Your task to perform on an android device: Search for pizza restaurants on Maps Image 0: 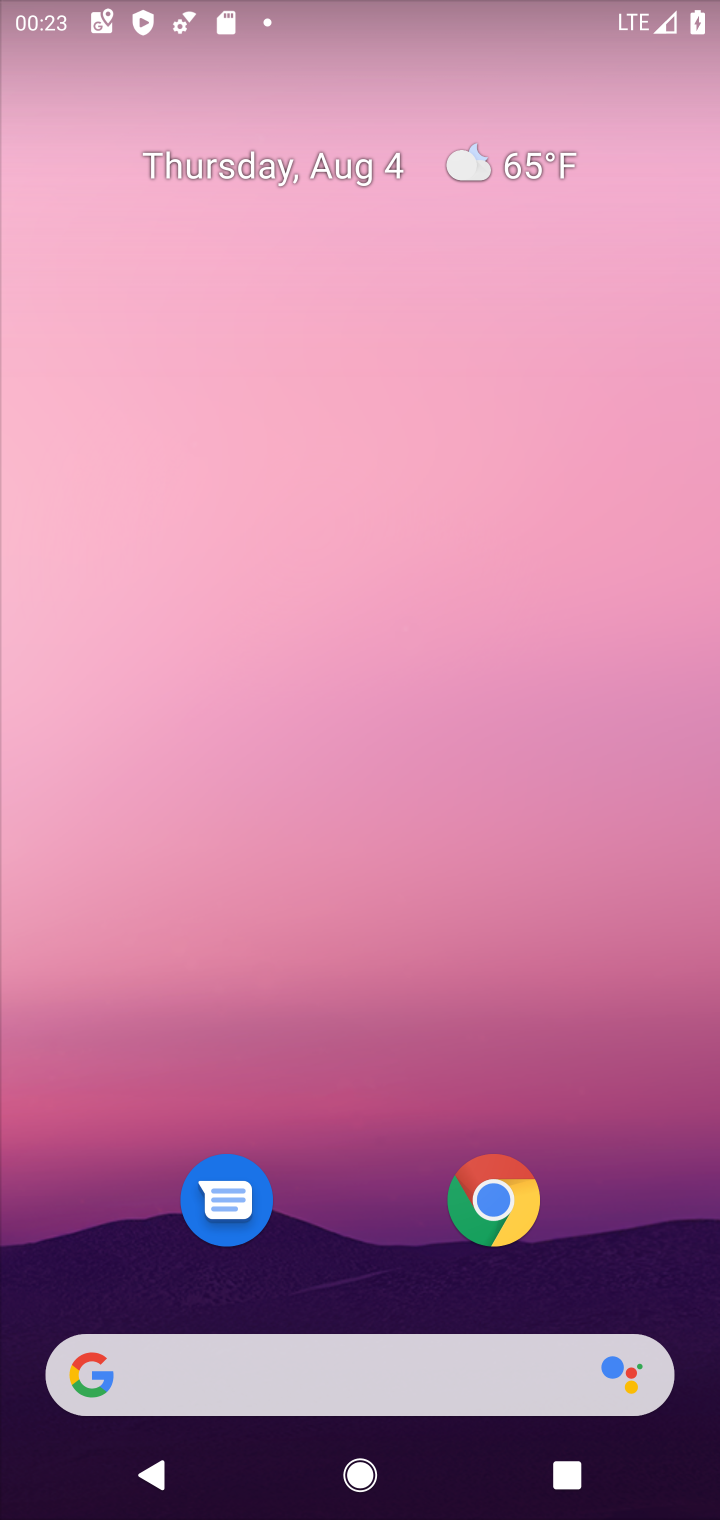
Step 0: click (491, 1187)
Your task to perform on an android device: Search for pizza restaurants on Maps Image 1: 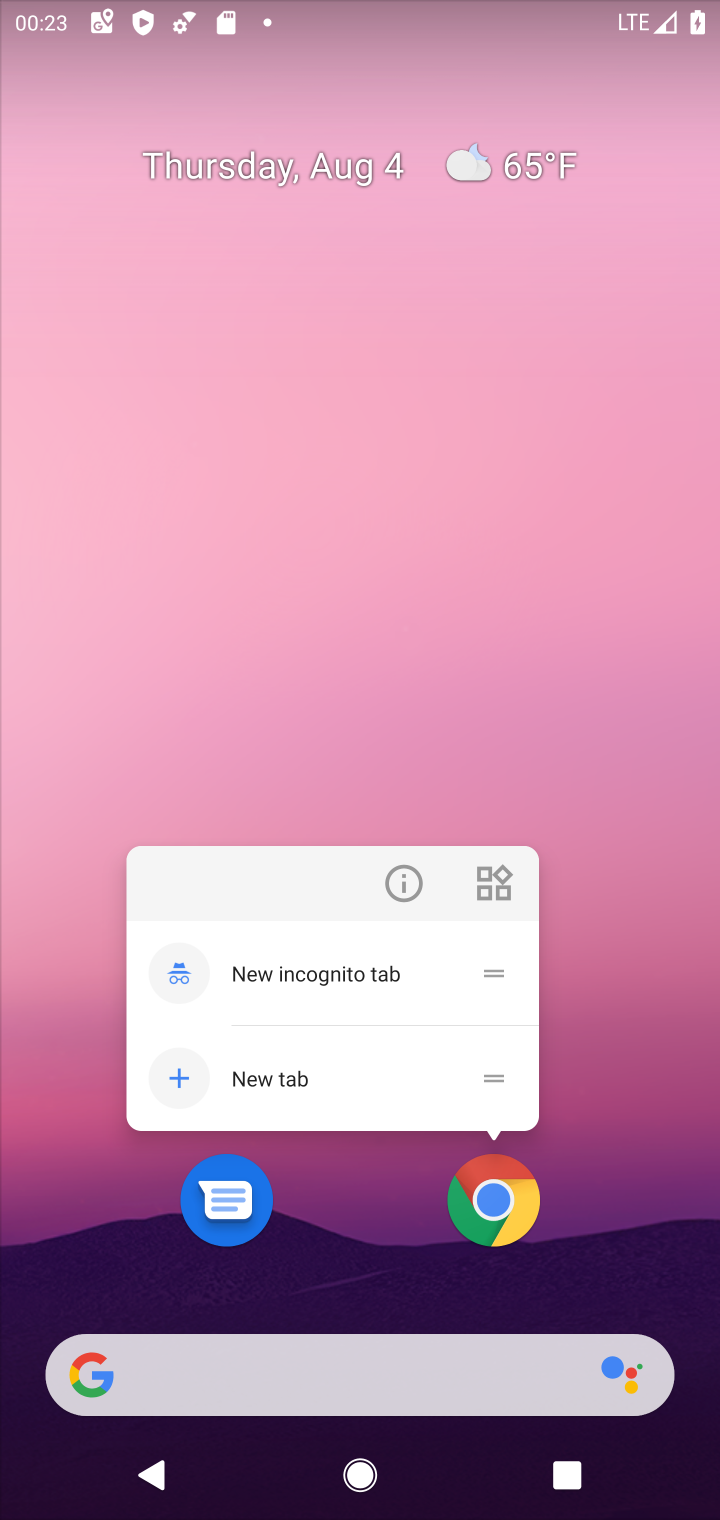
Step 1: drag from (352, 1226) to (434, 286)
Your task to perform on an android device: Search for pizza restaurants on Maps Image 2: 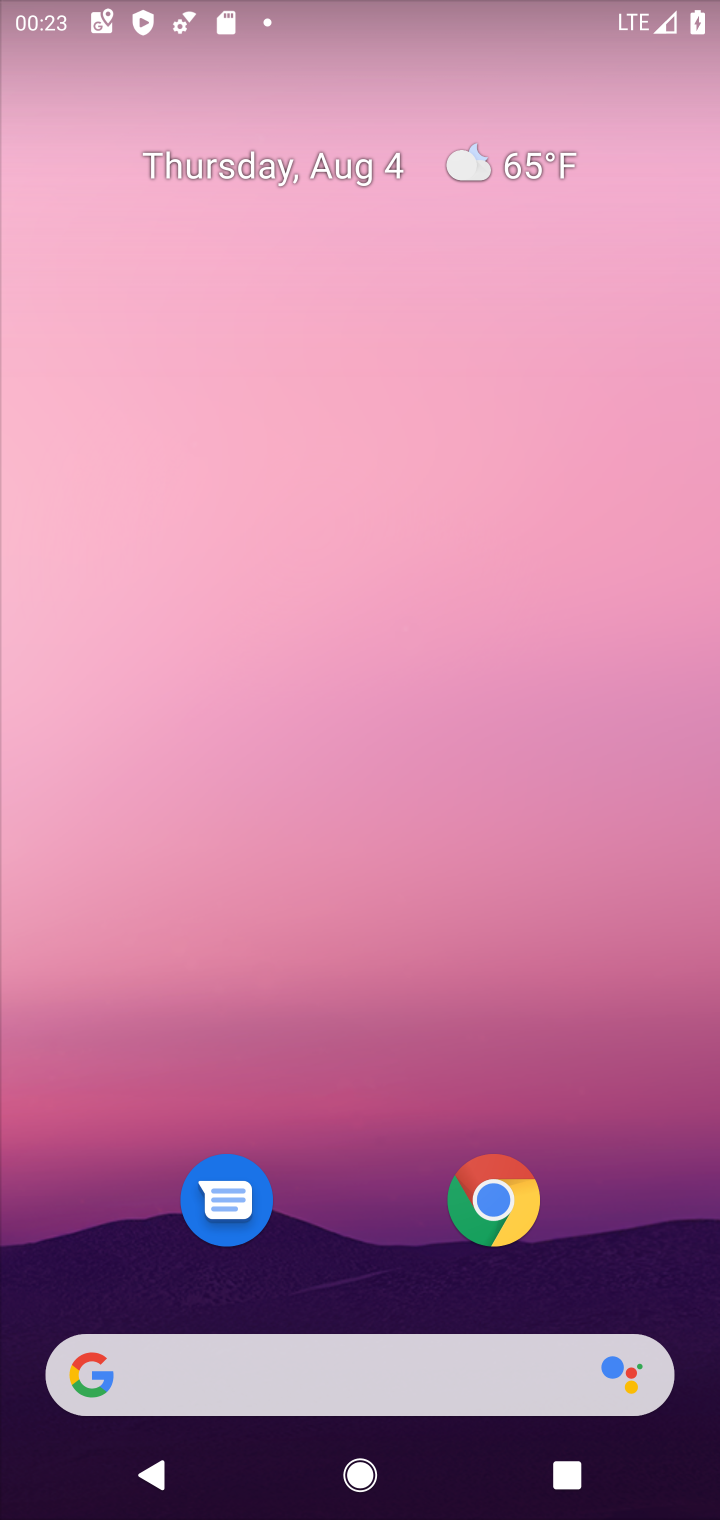
Step 2: drag from (326, 1216) to (374, 259)
Your task to perform on an android device: Search for pizza restaurants on Maps Image 3: 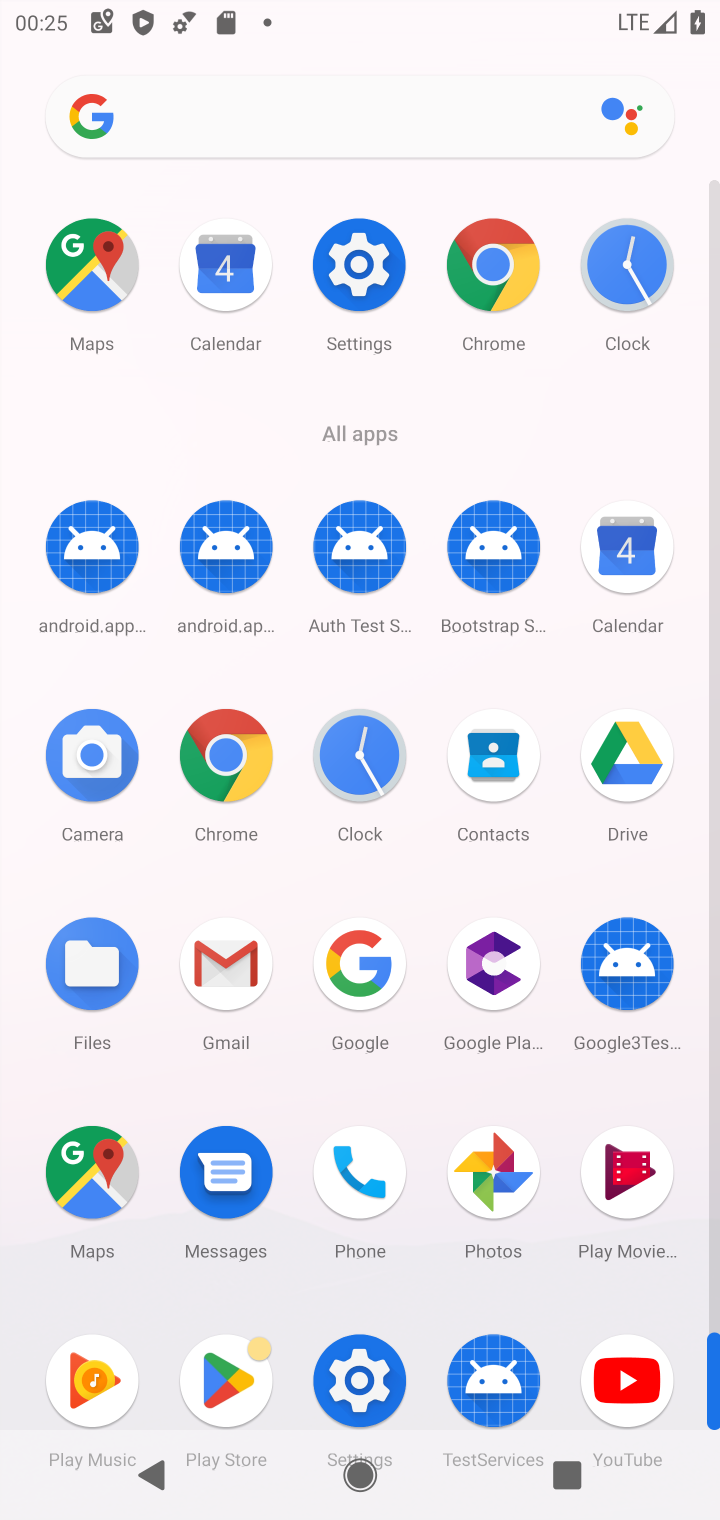
Step 3: click (49, 1153)
Your task to perform on an android device: Search for pizza restaurants on Maps Image 4: 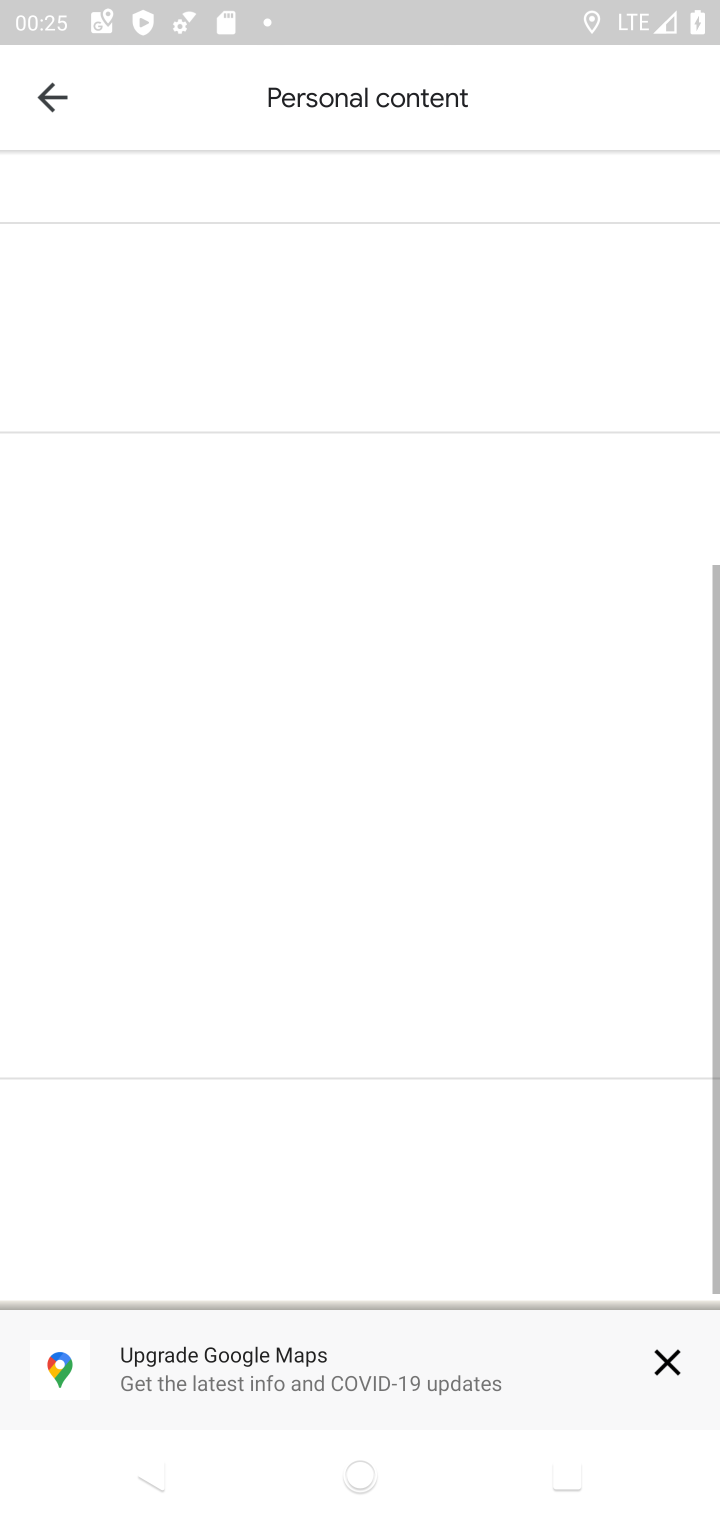
Step 4: click (22, 108)
Your task to perform on an android device: Search for pizza restaurants on Maps Image 5: 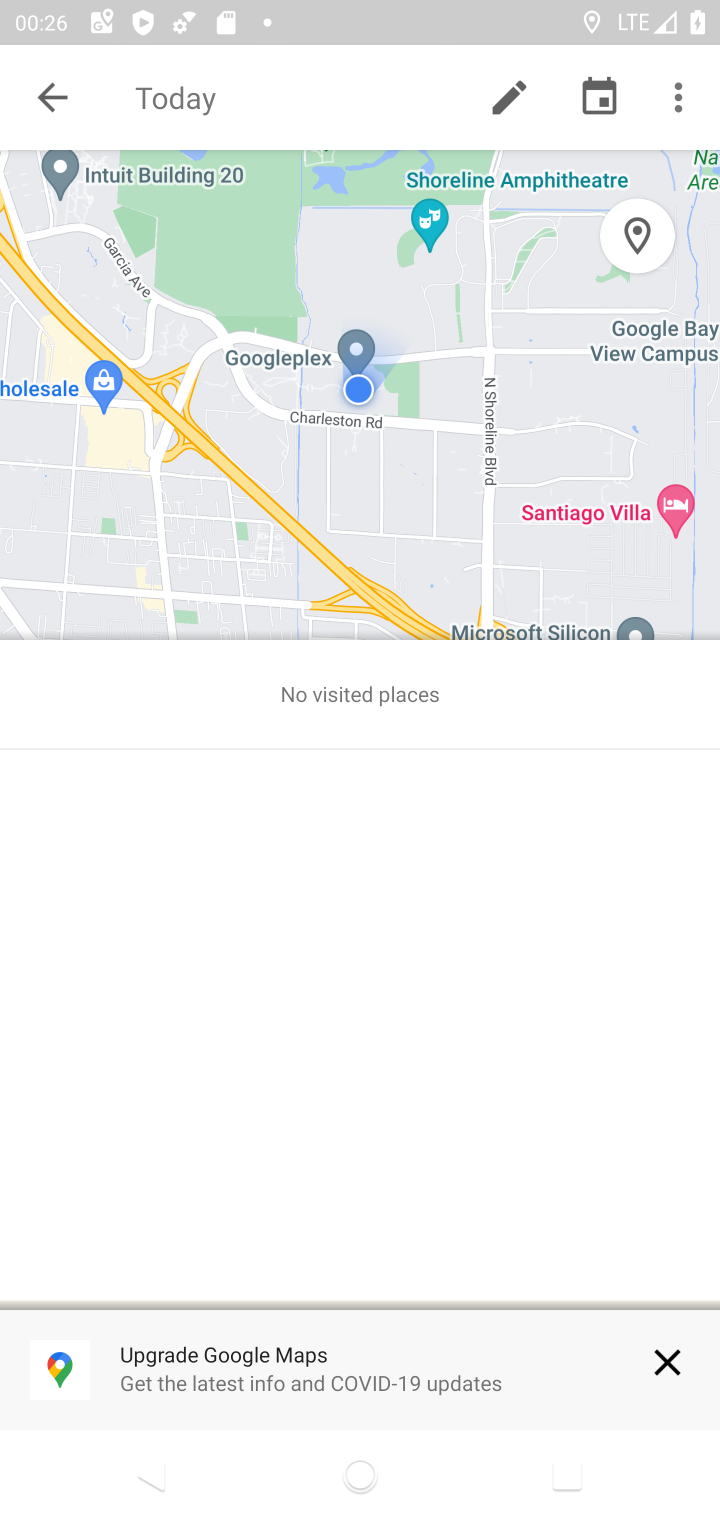
Step 5: click (41, 128)
Your task to perform on an android device: Search for pizza restaurants on Maps Image 6: 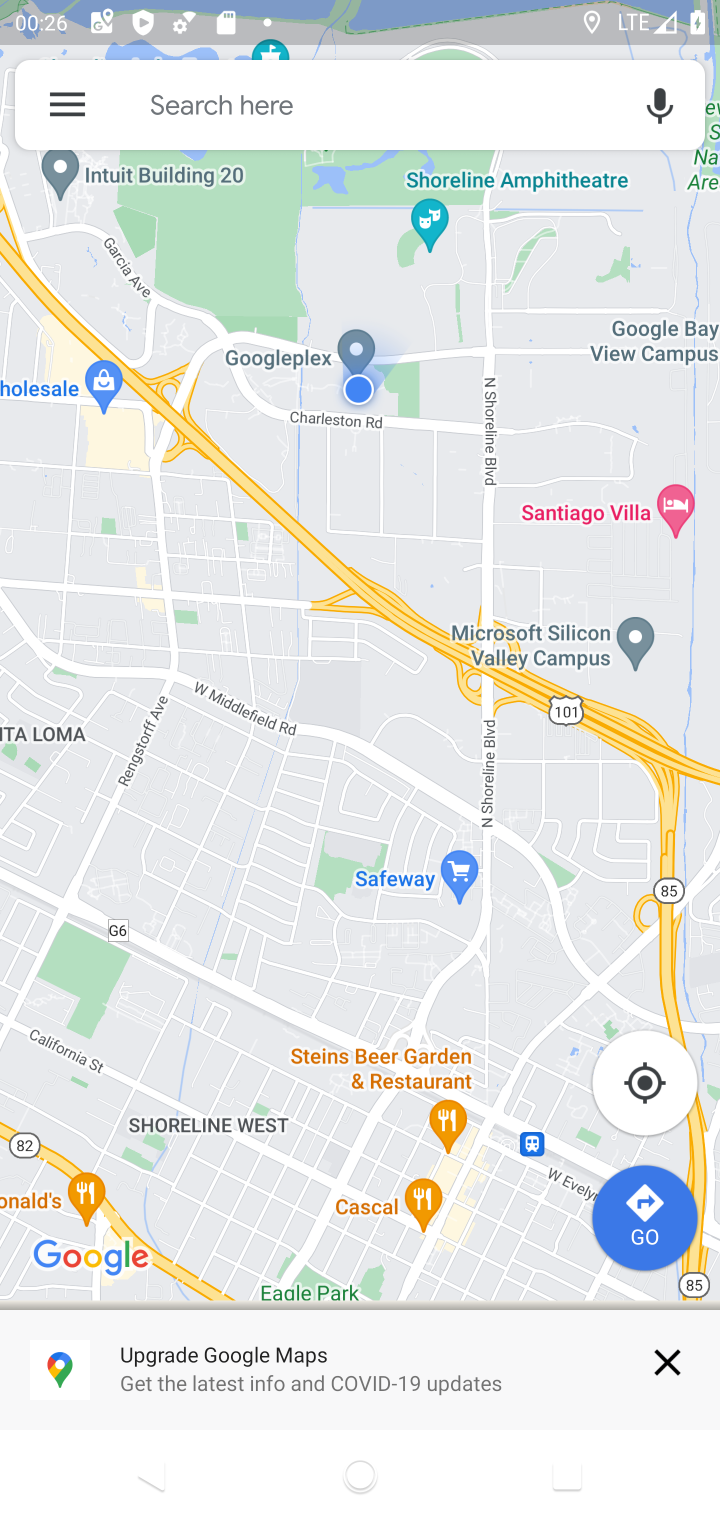
Step 6: type " pizza restaurants"
Your task to perform on an android device: Search for pizza restaurants on Maps Image 7: 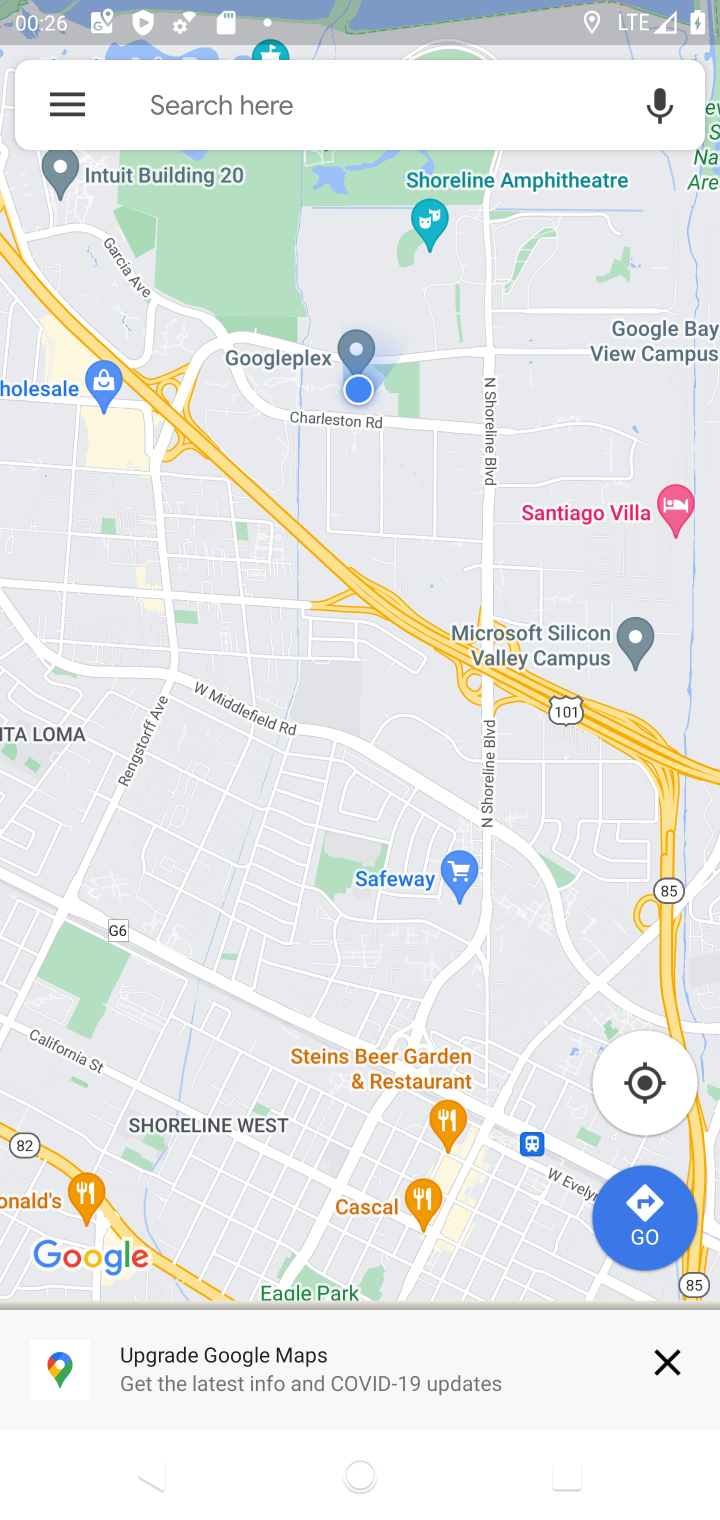
Step 7: click (567, 85)
Your task to perform on an android device: Search for pizza restaurants on Maps Image 8: 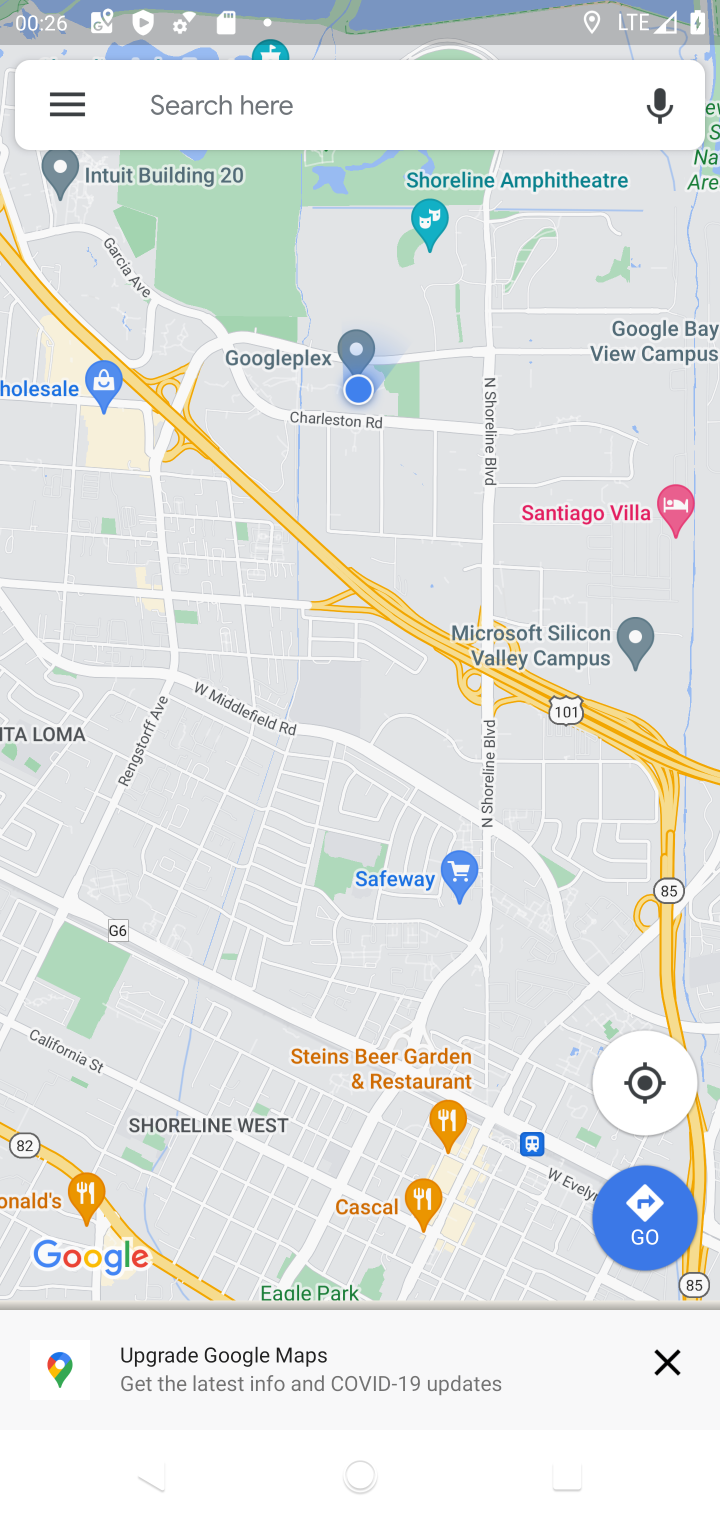
Step 8: click (567, 85)
Your task to perform on an android device: Search for pizza restaurants on Maps Image 9: 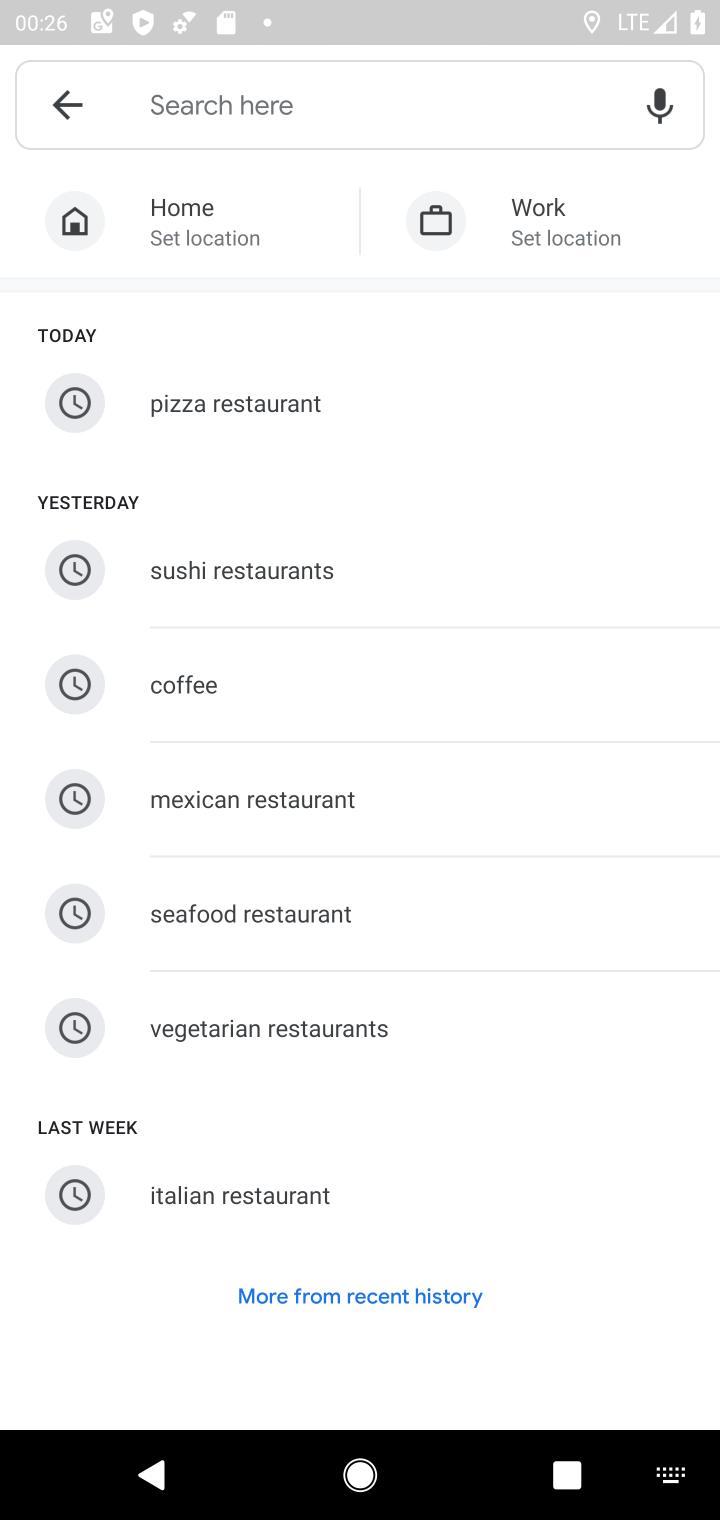
Step 9: type " pizza restaurants"
Your task to perform on an android device: Search for pizza restaurants on Maps Image 10: 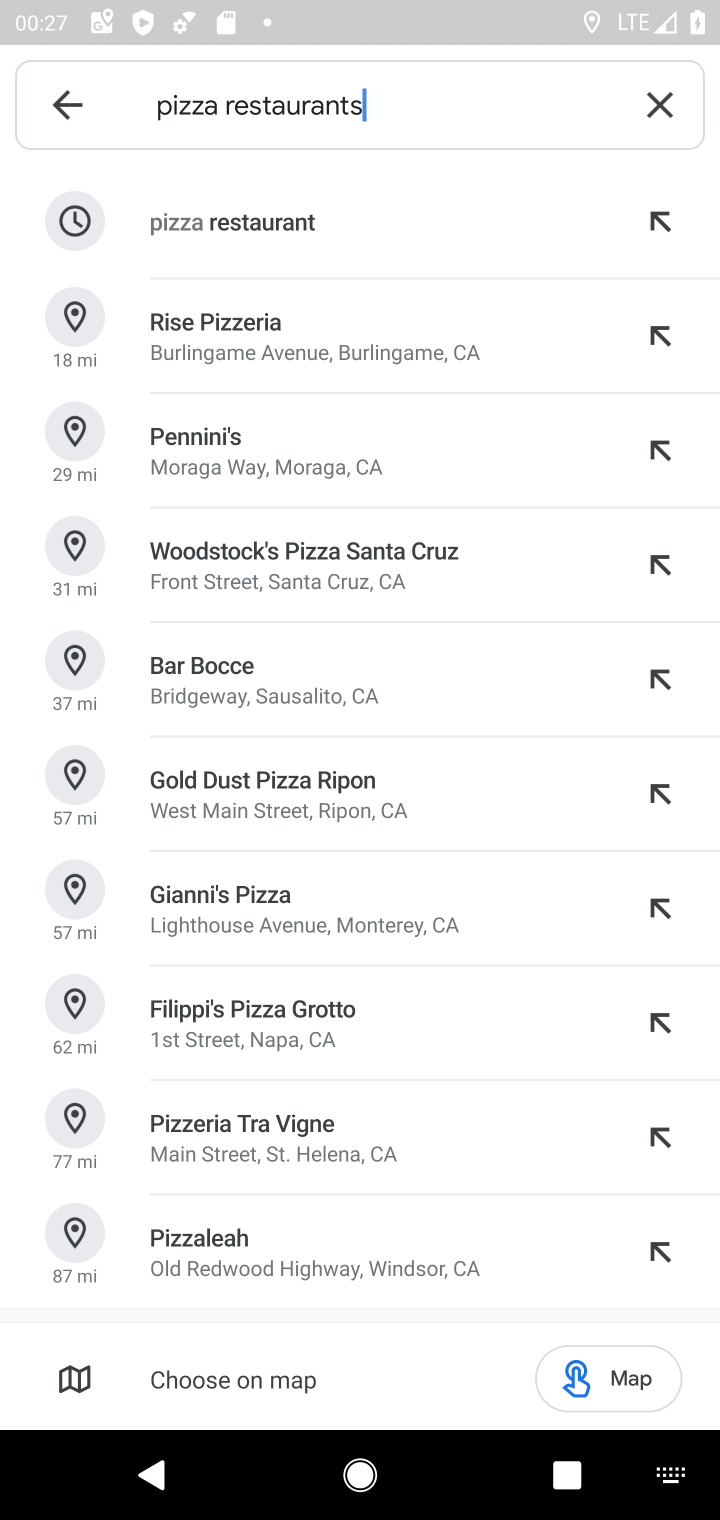
Step 10: click (197, 224)
Your task to perform on an android device: Search for pizza restaurants on Maps Image 11: 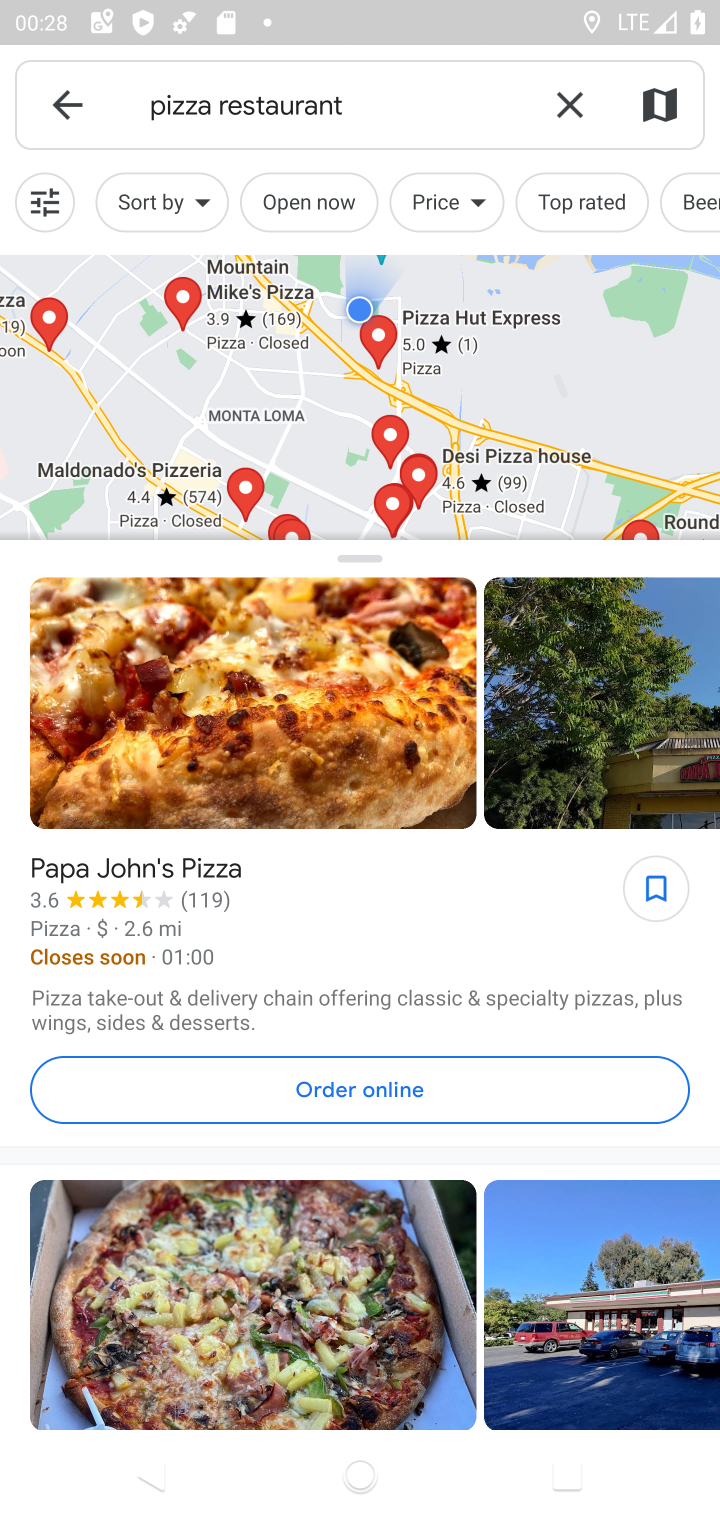
Step 11: task complete